Your task to perform on an android device: create a new album in the google photos Image 0: 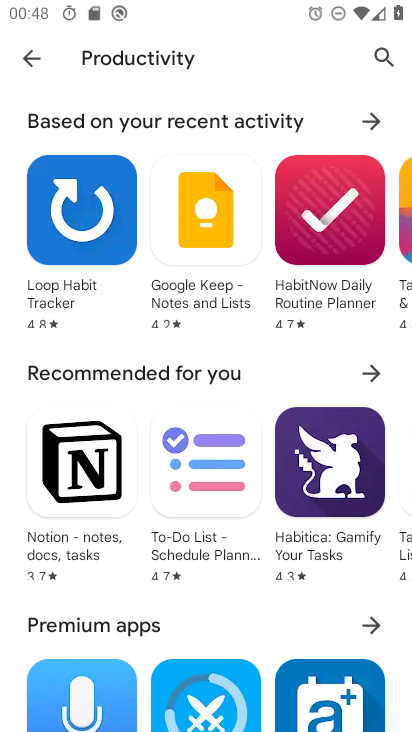
Step 0: press home button
Your task to perform on an android device: create a new album in the google photos Image 1: 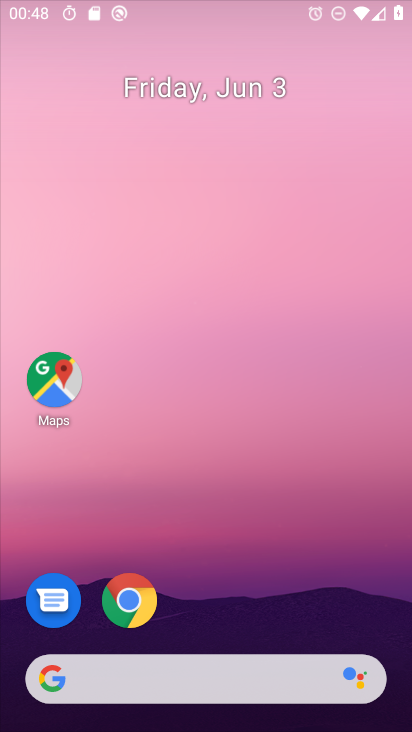
Step 1: drag from (225, 615) to (252, 123)
Your task to perform on an android device: create a new album in the google photos Image 2: 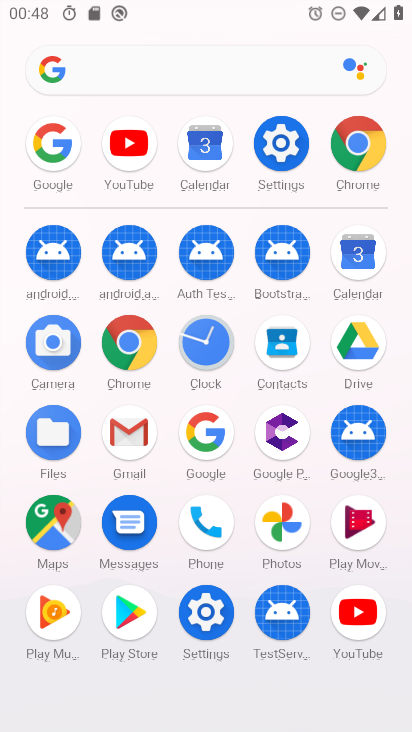
Step 2: click (281, 525)
Your task to perform on an android device: create a new album in the google photos Image 3: 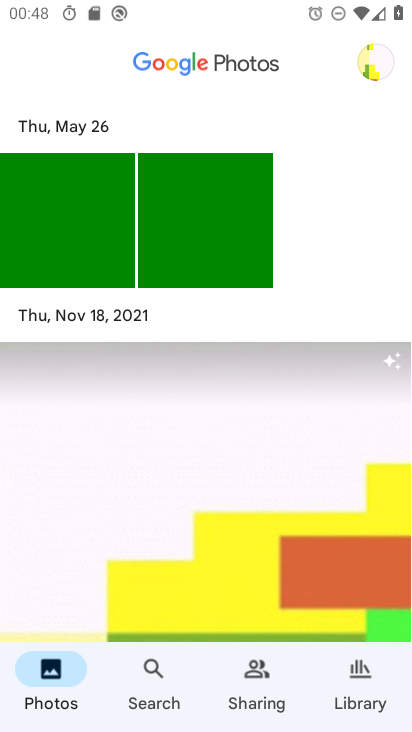
Step 3: task complete